Your task to perform on an android device: Go to Maps Image 0: 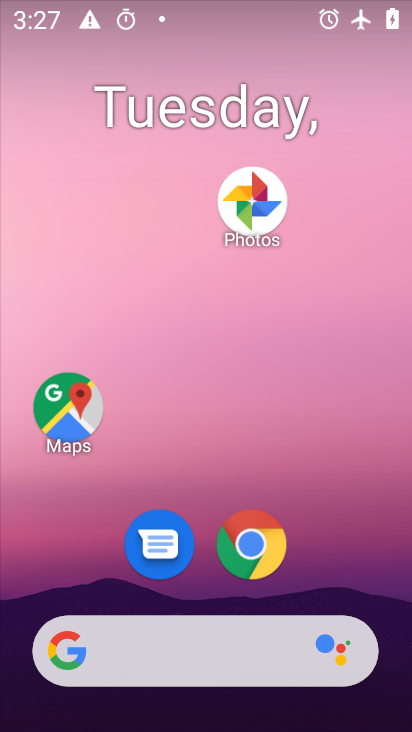
Step 0: click (61, 408)
Your task to perform on an android device: Go to Maps Image 1: 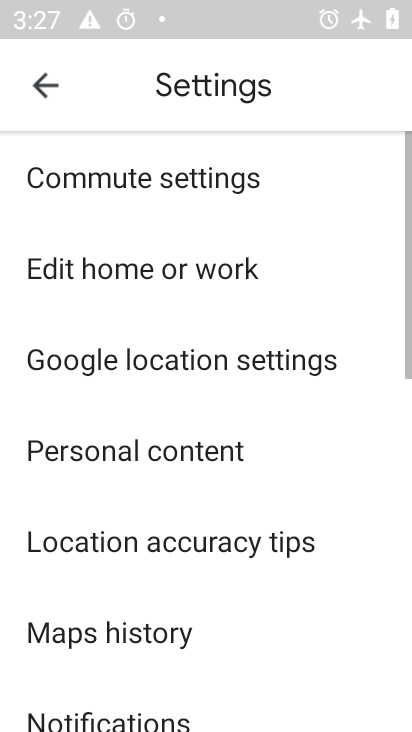
Step 1: click (58, 92)
Your task to perform on an android device: Go to Maps Image 2: 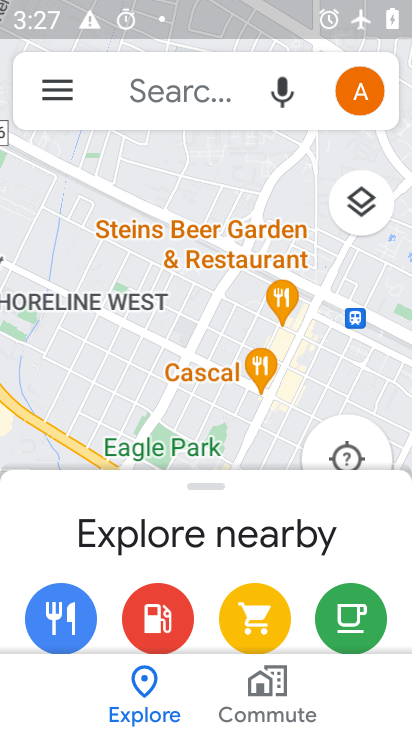
Step 2: click (58, 92)
Your task to perform on an android device: Go to Maps Image 3: 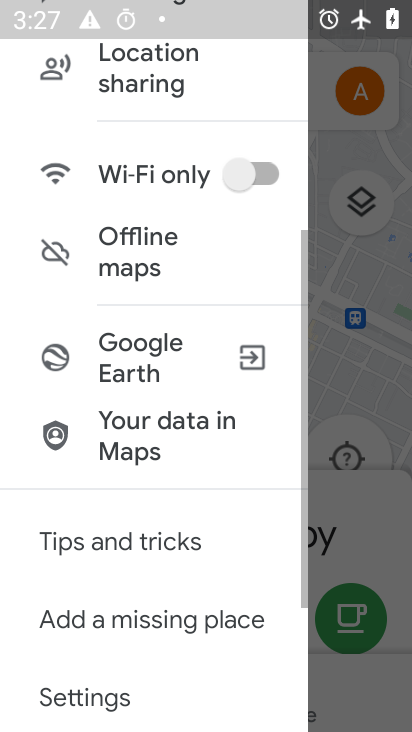
Step 3: click (317, 178)
Your task to perform on an android device: Go to Maps Image 4: 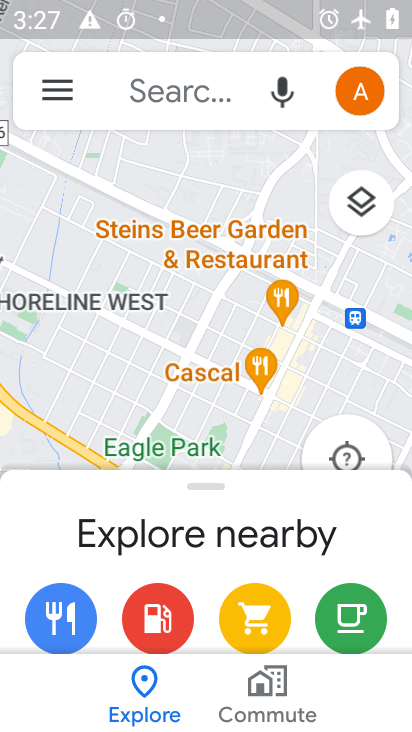
Step 4: task complete